Your task to perform on an android device: Search for seafood restaurants on Google Maps Image 0: 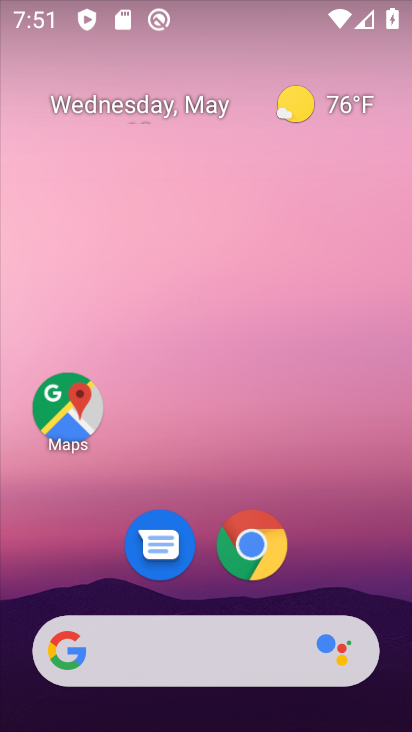
Step 0: drag from (348, 683) to (270, 201)
Your task to perform on an android device: Search for seafood restaurants on Google Maps Image 1: 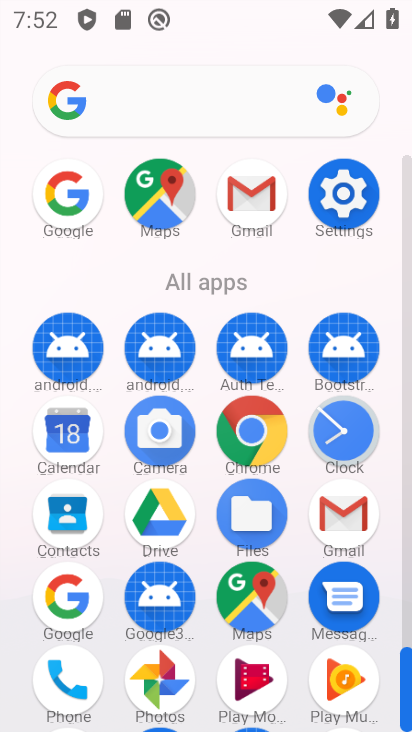
Step 1: click (174, 192)
Your task to perform on an android device: Search for seafood restaurants on Google Maps Image 2: 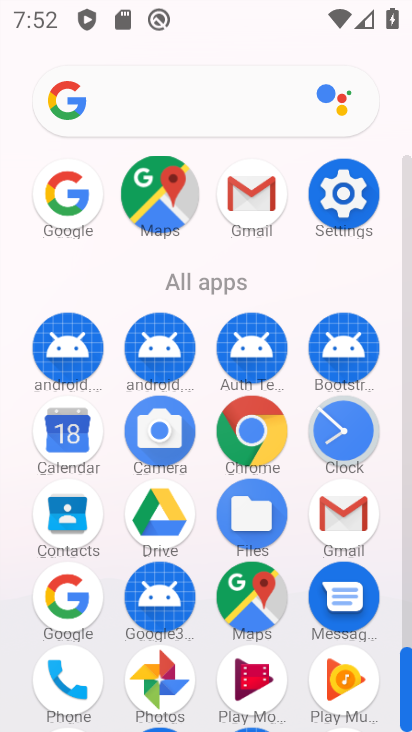
Step 2: click (173, 192)
Your task to perform on an android device: Search for seafood restaurants on Google Maps Image 3: 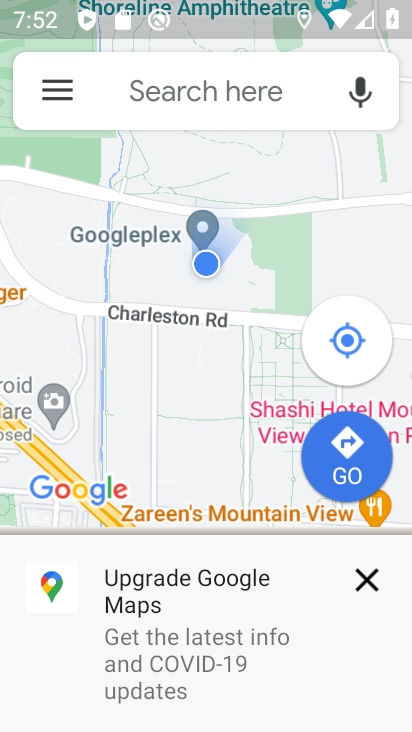
Step 3: click (136, 95)
Your task to perform on an android device: Search for seafood restaurants on Google Maps Image 4: 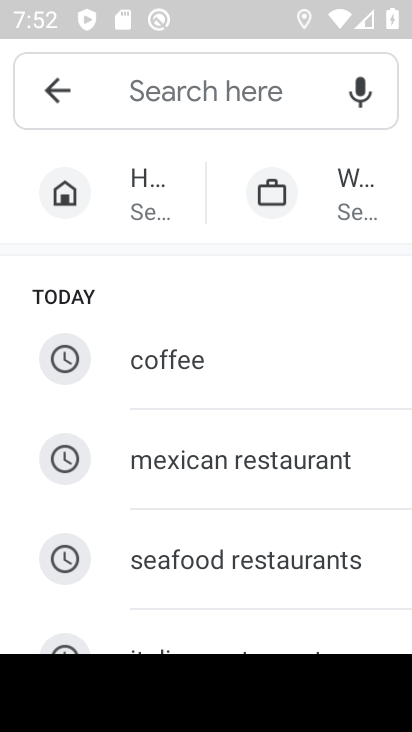
Step 4: type "seafood restaurants"
Your task to perform on an android device: Search for seafood restaurants on Google Maps Image 5: 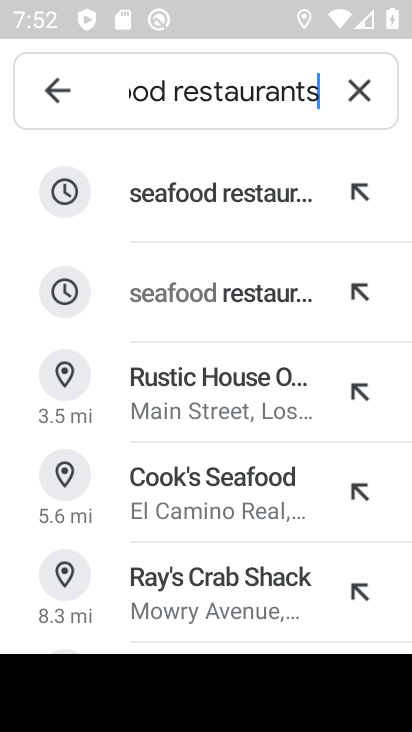
Step 5: click (221, 190)
Your task to perform on an android device: Search for seafood restaurants on Google Maps Image 6: 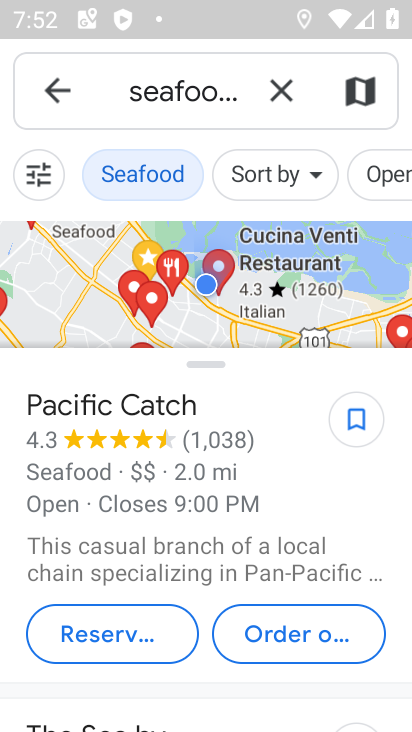
Step 6: task complete